Your task to perform on an android device: Go to display settings Image 0: 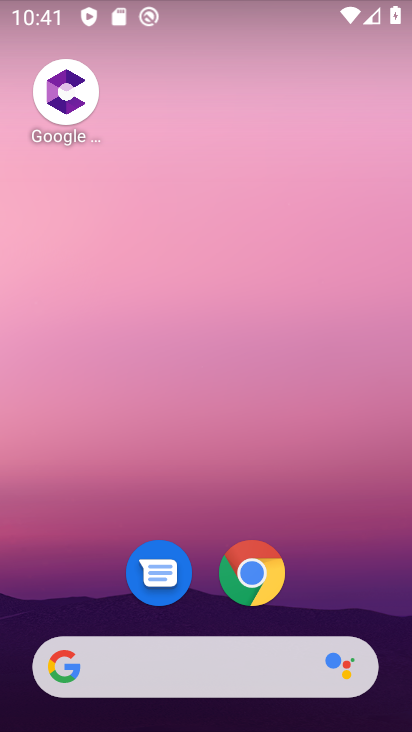
Step 0: drag from (73, 620) to (192, 99)
Your task to perform on an android device: Go to display settings Image 1: 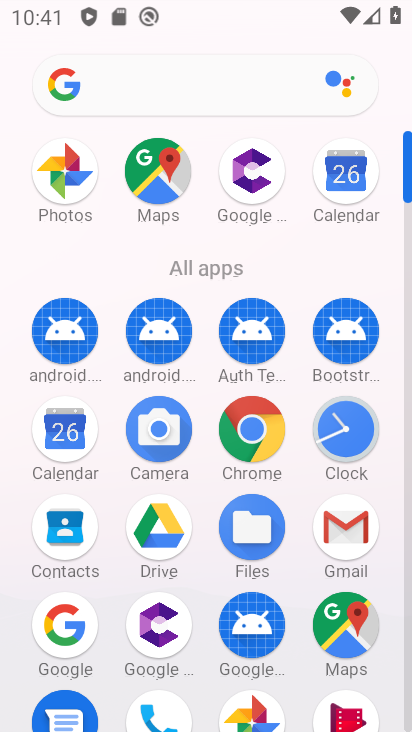
Step 1: drag from (146, 571) to (206, 352)
Your task to perform on an android device: Go to display settings Image 2: 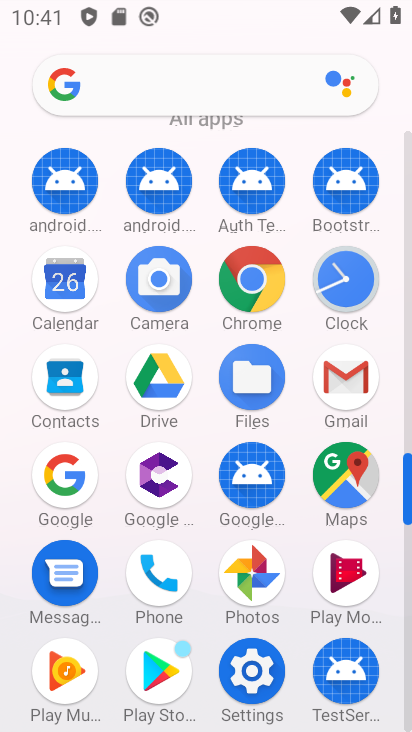
Step 2: click (254, 677)
Your task to perform on an android device: Go to display settings Image 3: 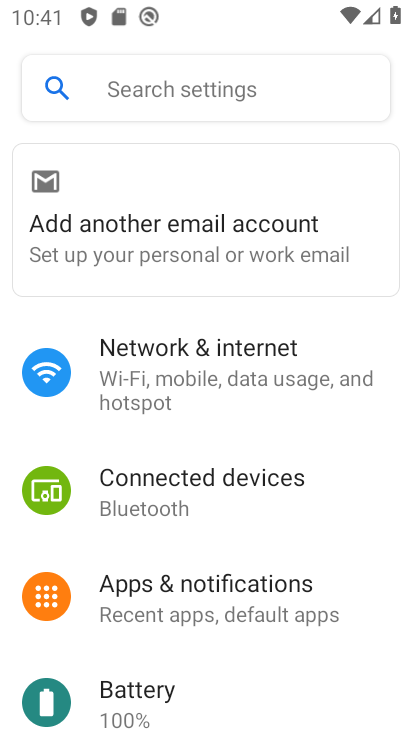
Step 3: drag from (181, 643) to (283, 295)
Your task to perform on an android device: Go to display settings Image 4: 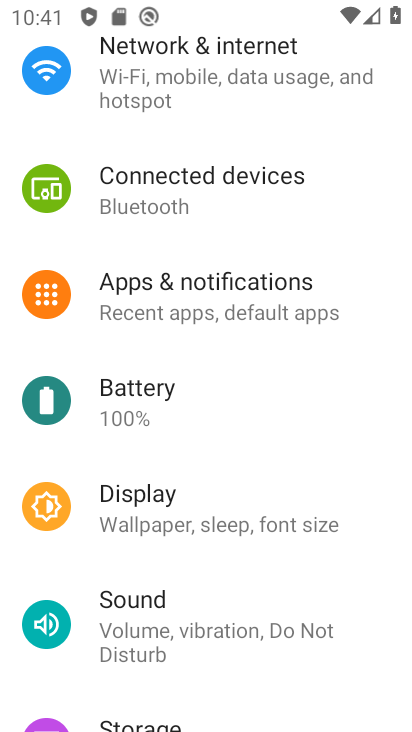
Step 4: click (201, 536)
Your task to perform on an android device: Go to display settings Image 5: 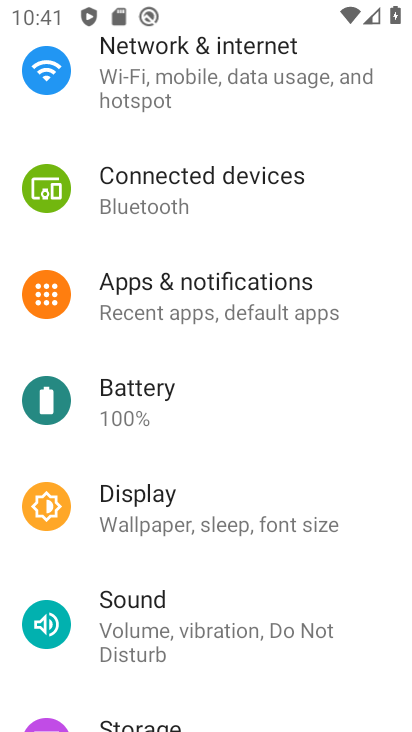
Step 5: click (201, 536)
Your task to perform on an android device: Go to display settings Image 6: 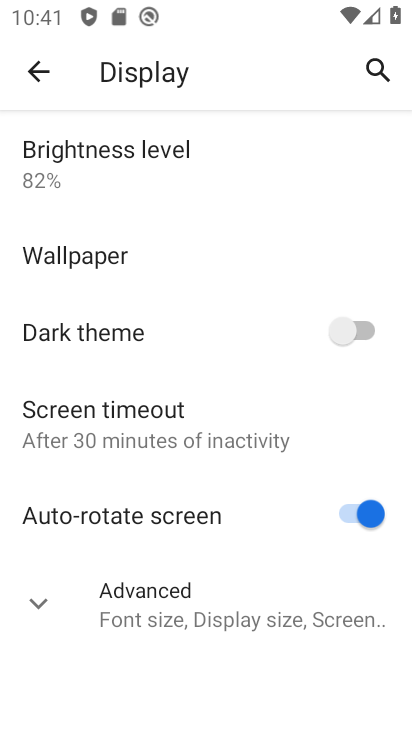
Step 6: task complete